Your task to perform on an android device: Do I have any events this weekend? Image 0: 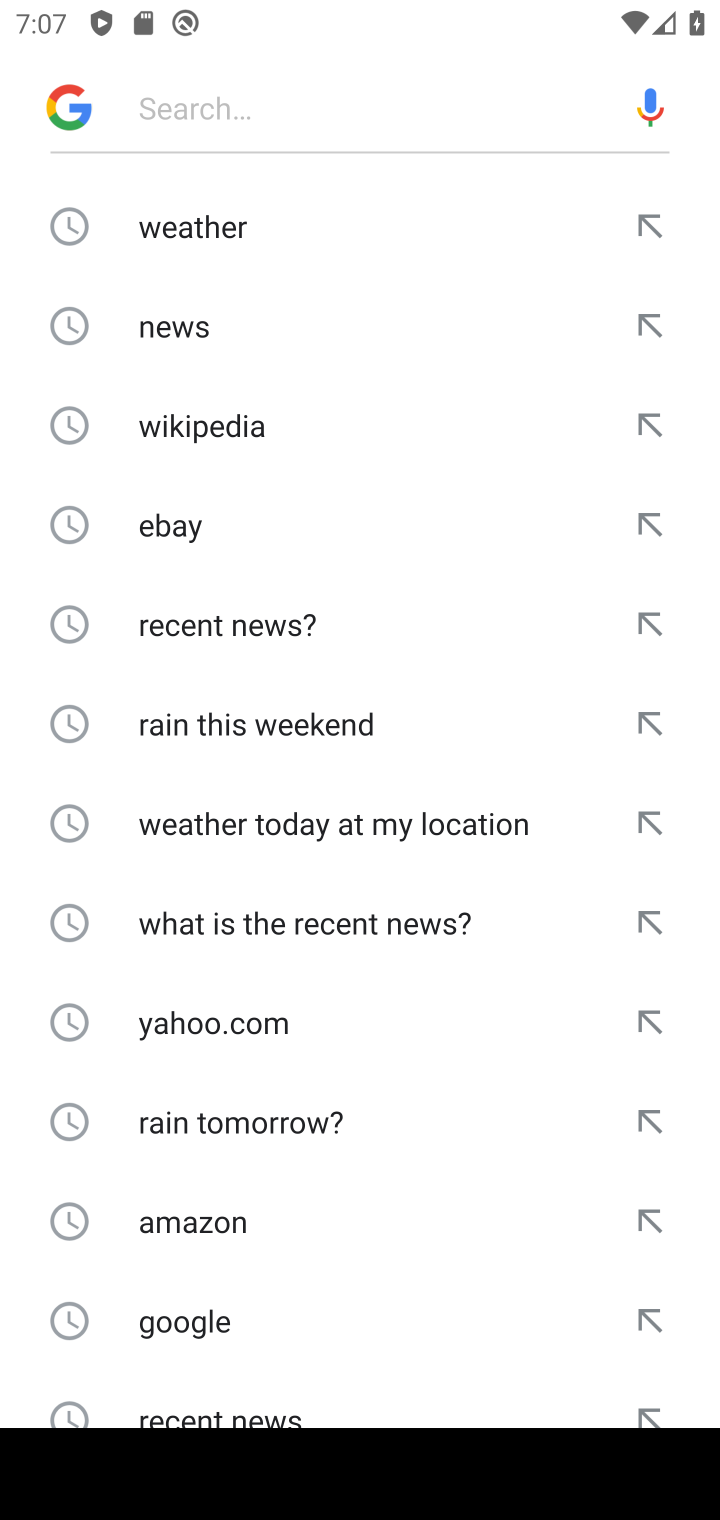
Step 0: press home button
Your task to perform on an android device: Do I have any events this weekend? Image 1: 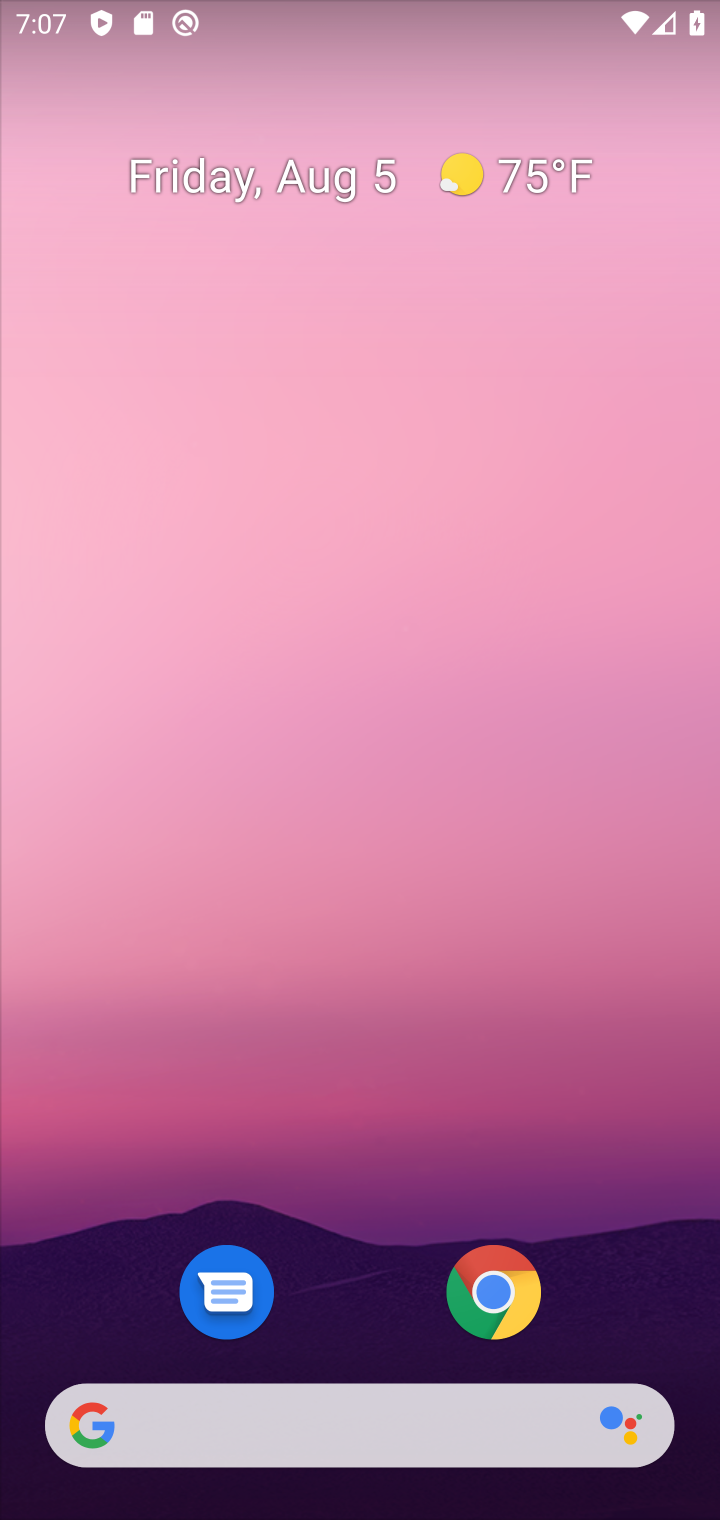
Step 1: drag from (366, 1205) to (315, 39)
Your task to perform on an android device: Do I have any events this weekend? Image 2: 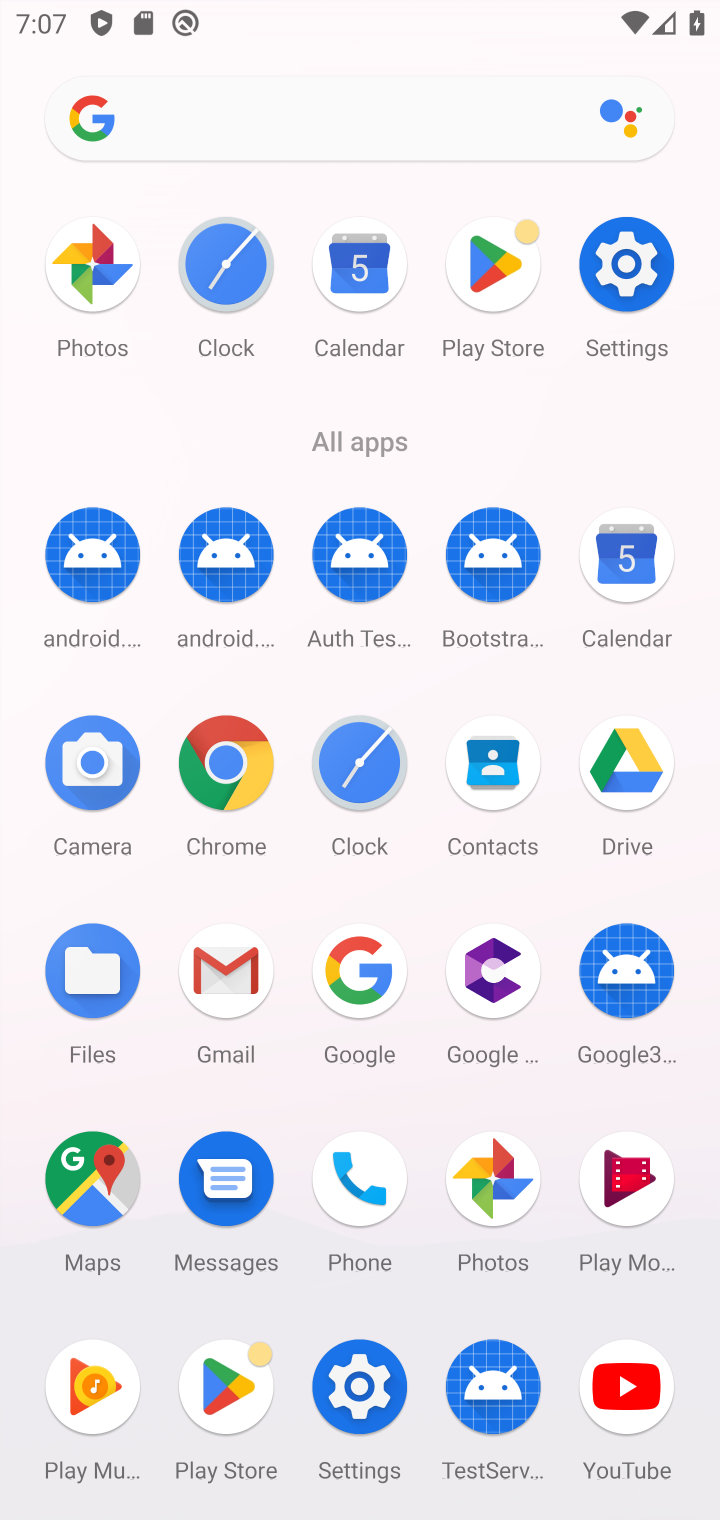
Step 2: click (373, 254)
Your task to perform on an android device: Do I have any events this weekend? Image 3: 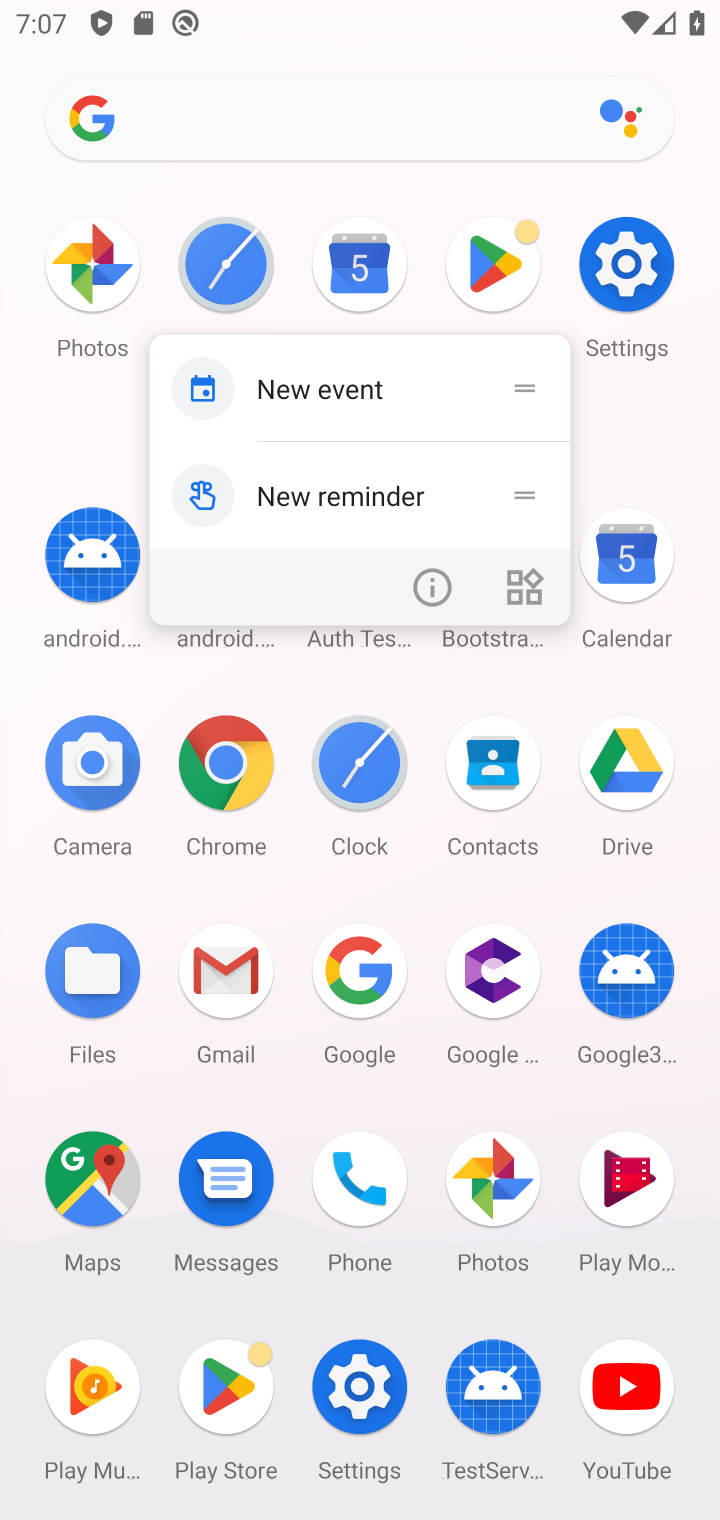
Step 3: click (367, 260)
Your task to perform on an android device: Do I have any events this weekend? Image 4: 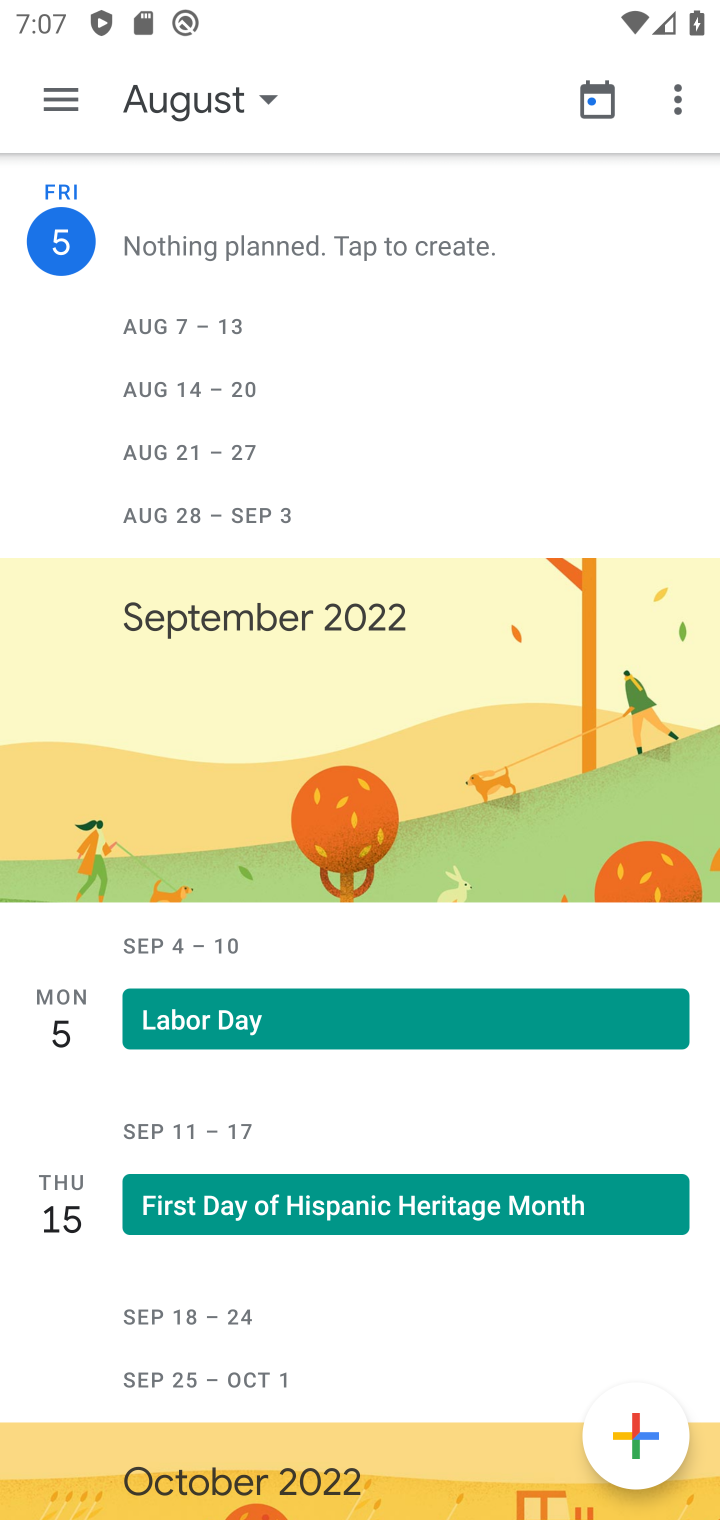
Step 4: drag from (386, 365) to (414, 1107)
Your task to perform on an android device: Do I have any events this weekend? Image 5: 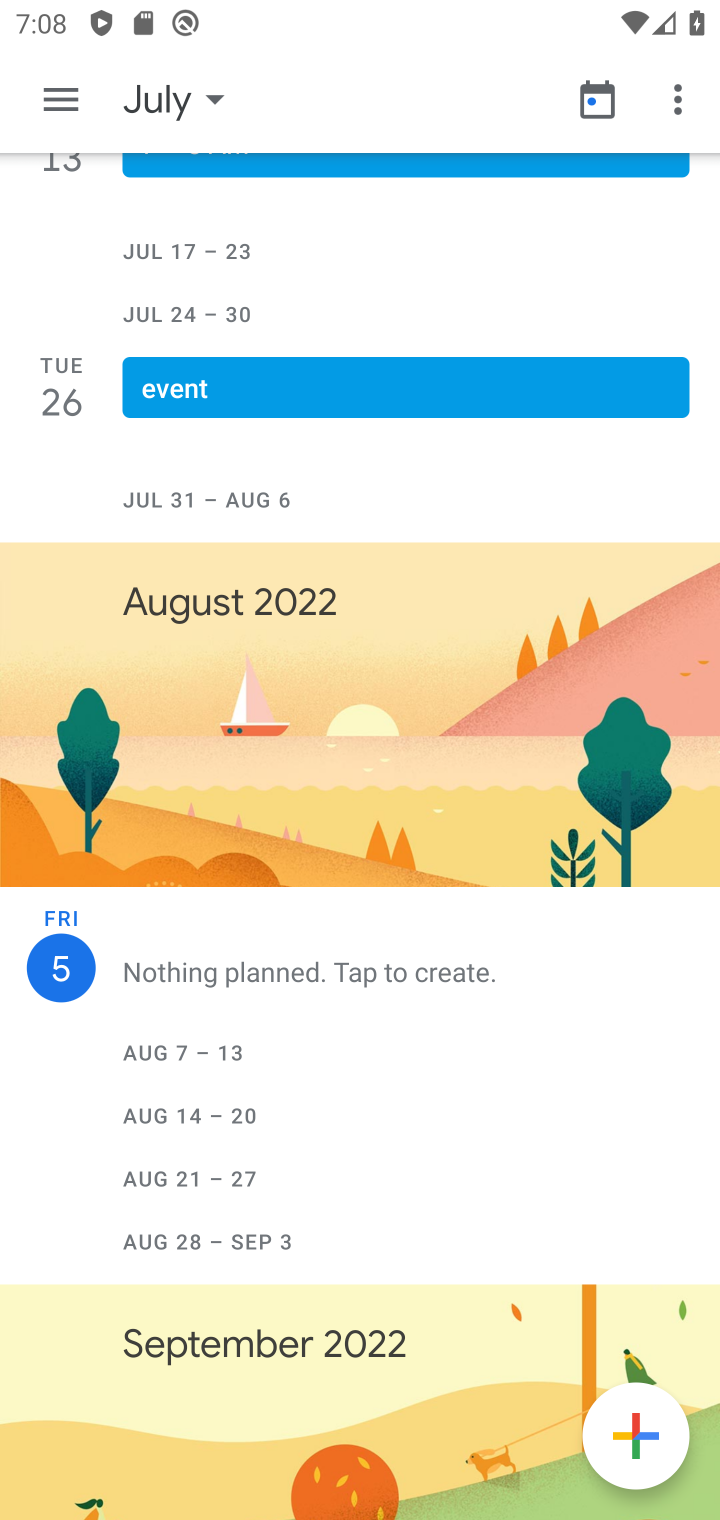
Step 5: click (63, 85)
Your task to perform on an android device: Do I have any events this weekend? Image 6: 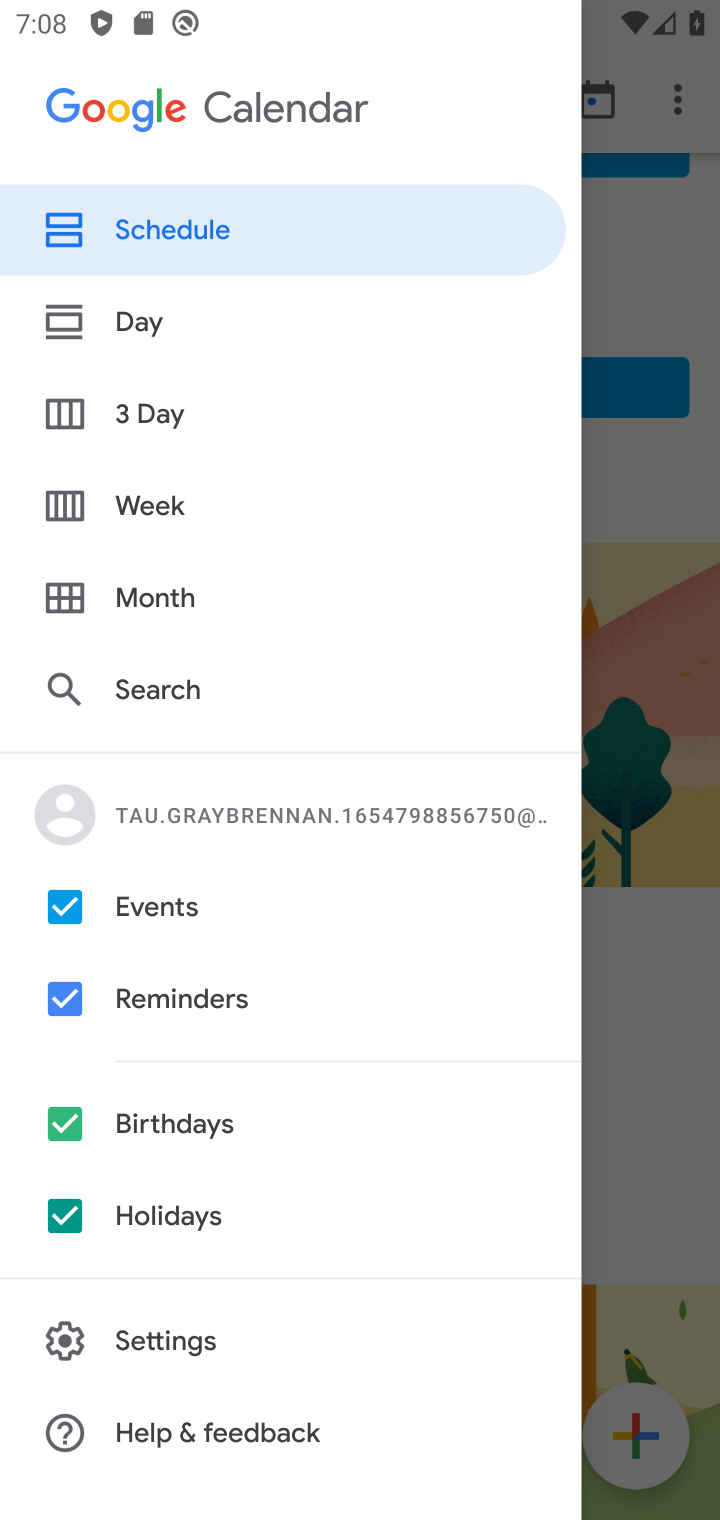
Step 6: click (56, 498)
Your task to perform on an android device: Do I have any events this weekend? Image 7: 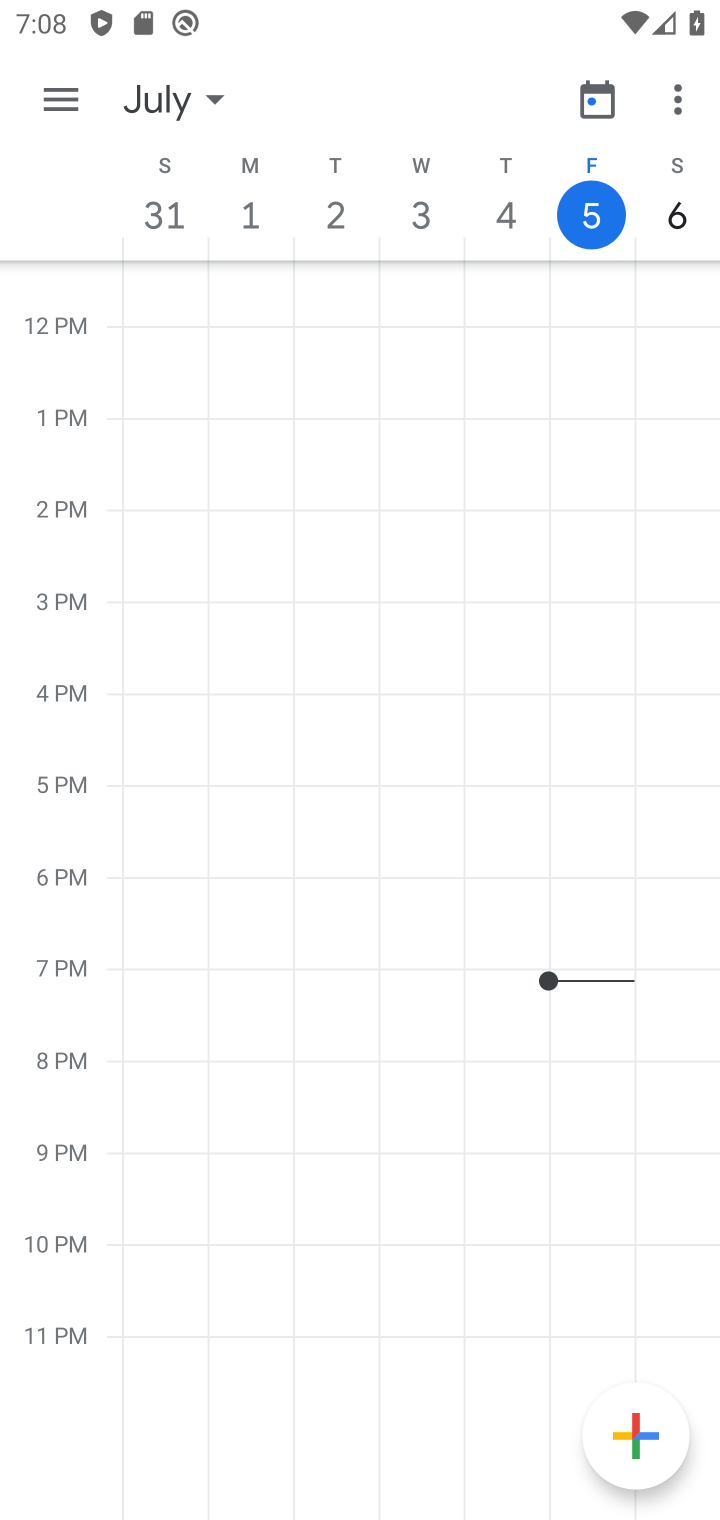
Step 7: click (668, 198)
Your task to perform on an android device: Do I have any events this weekend? Image 8: 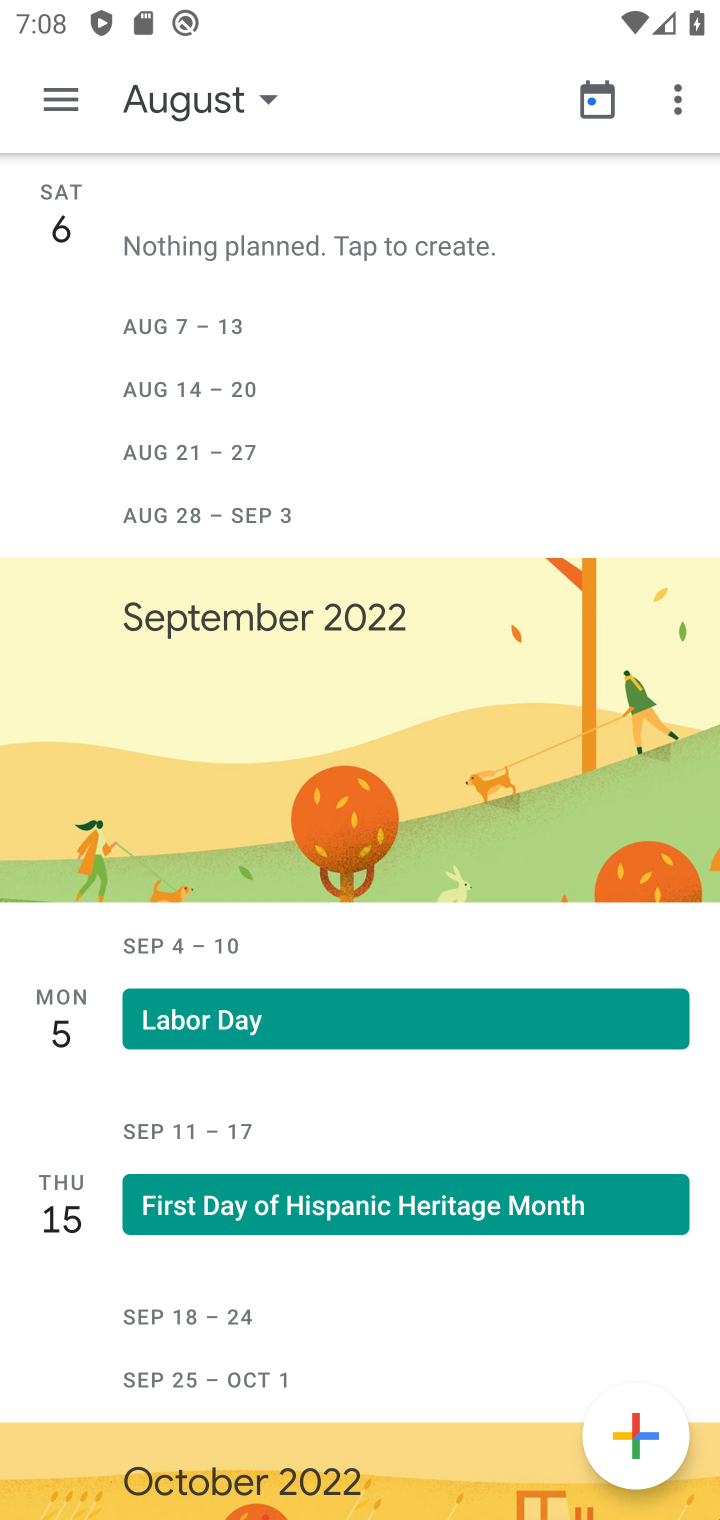
Step 8: task complete